Your task to perform on an android device: turn on location history Image 0: 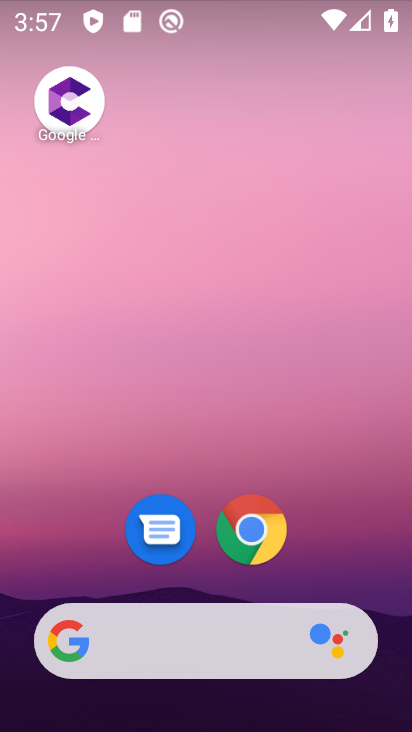
Step 0: drag from (330, 574) to (257, 53)
Your task to perform on an android device: turn on location history Image 1: 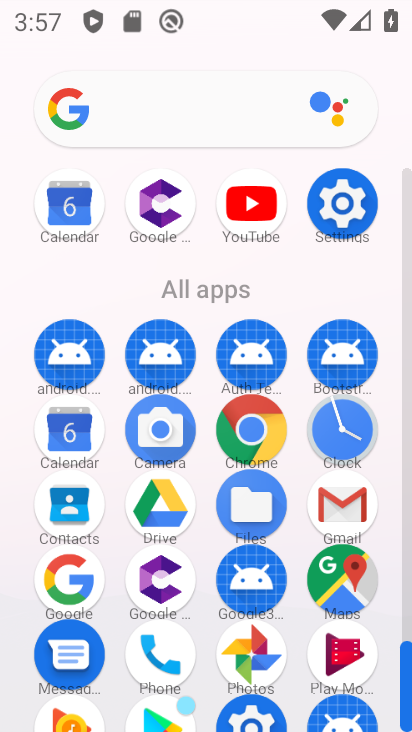
Step 1: click (345, 207)
Your task to perform on an android device: turn on location history Image 2: 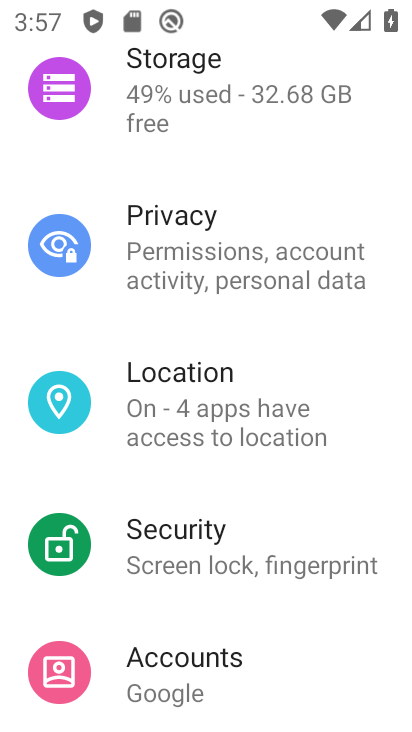
Step 2: click (208, 385)
Your task to perform on an android device: turn on location history Image 3: 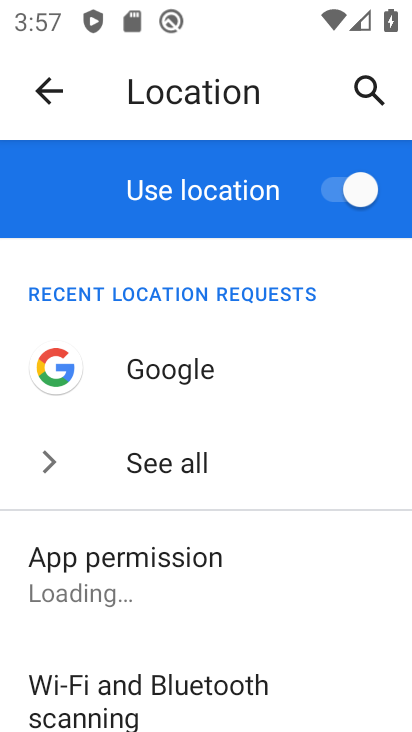
Step 3: drag from (173, 648) to (178, 335)
Your task to perform on an android device: turn on location history Image 4: 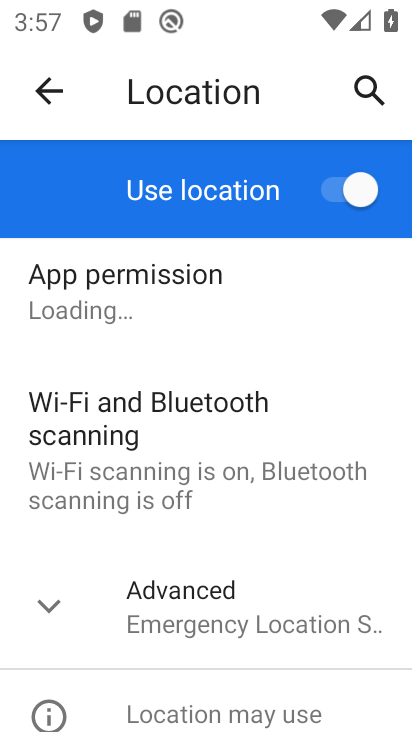
Step 4: click (232, 616)
Your task to perform on an android device: turn on location history Image 5: 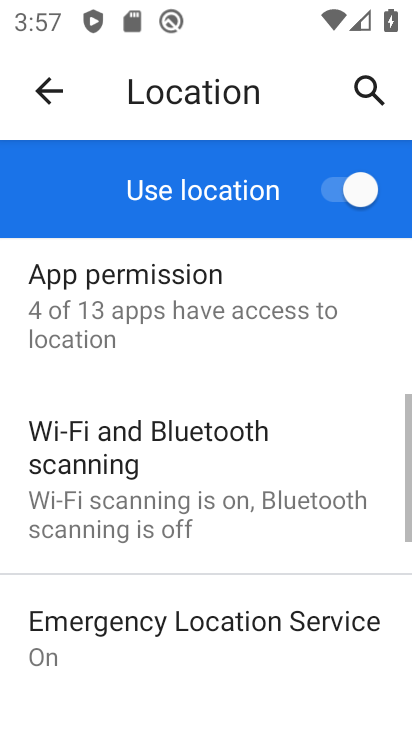
Step 5: drag from (190, 659) to (222, 350)
Your task to perform on an android device: turn on location history Image 6: 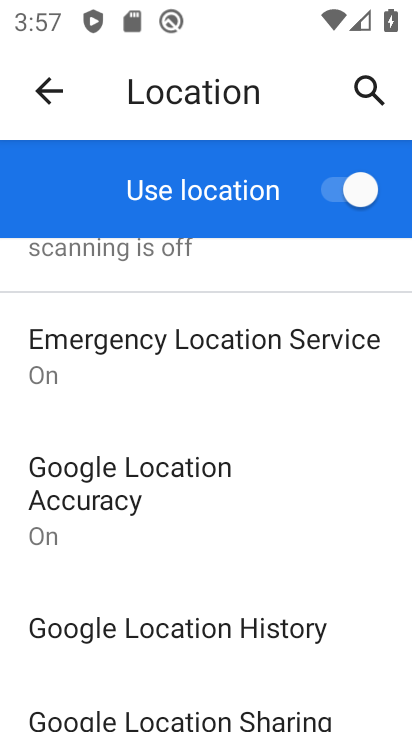
Step 6: click (228, 630)
Your task to perform on an android device: turn on location history Image 7: 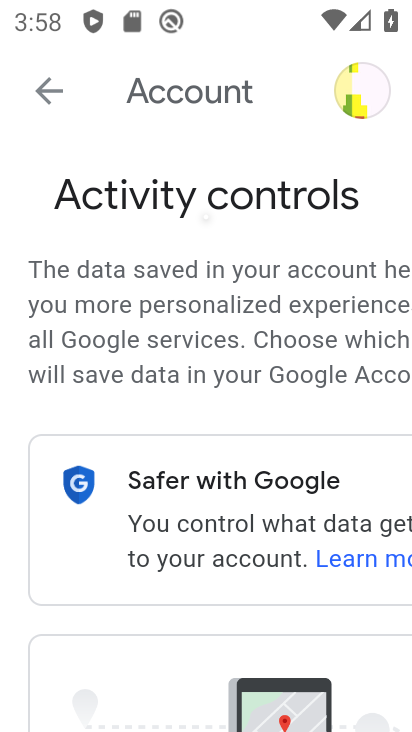
Step 7: task complete